Your task to perform on an android device: change notifications settings Image 0: 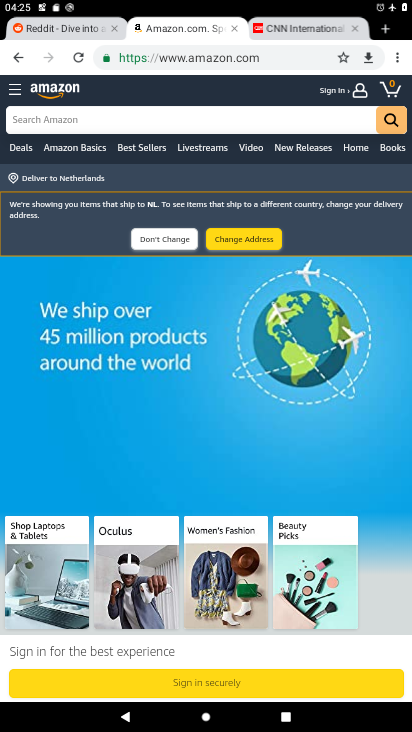
Step 0: press home button
Your task to perform on an android device: change notifications settings Image 1: 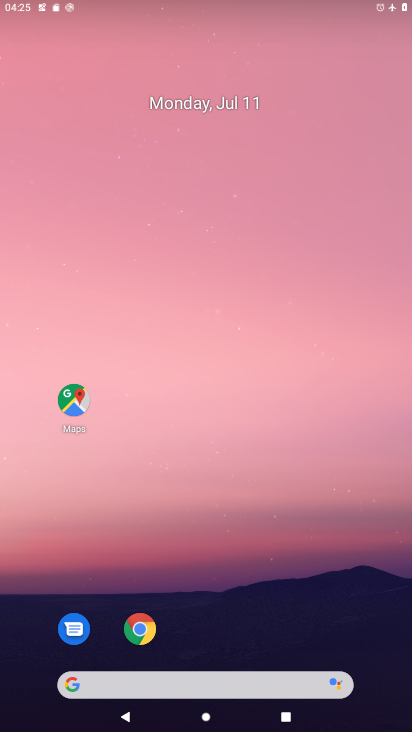
Step 1: drag from (199, 500) to (232, 23)
Your task to perform on an android device: change notifications settings Image 2: 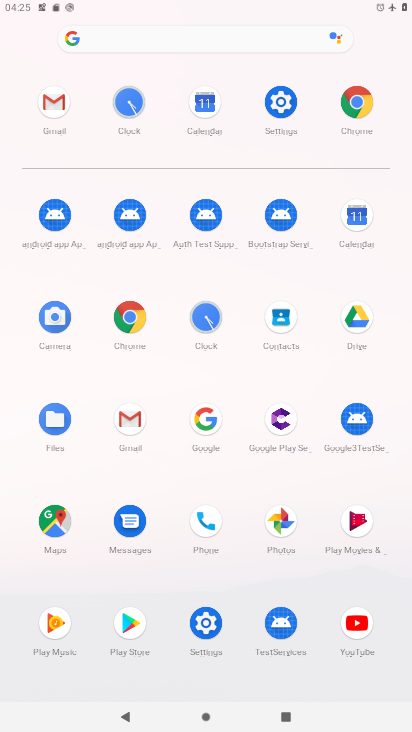
Step 2: click (290, 108)
Your task to perform on an android device: change notifications settings Image 3: 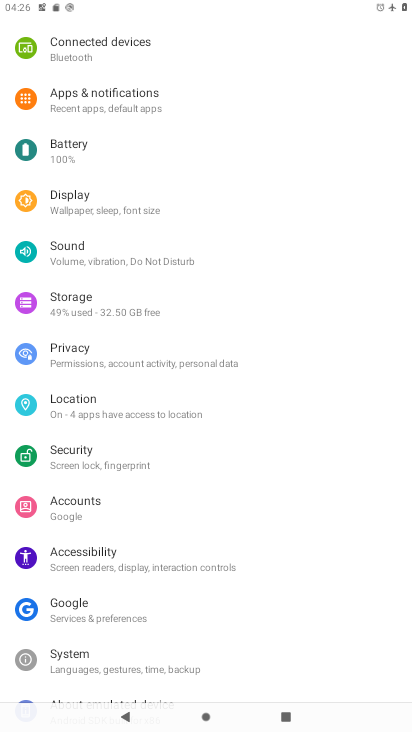
Step 3: click (129, 97)
Your task to perform on an android device: change notifications settings Image 4: 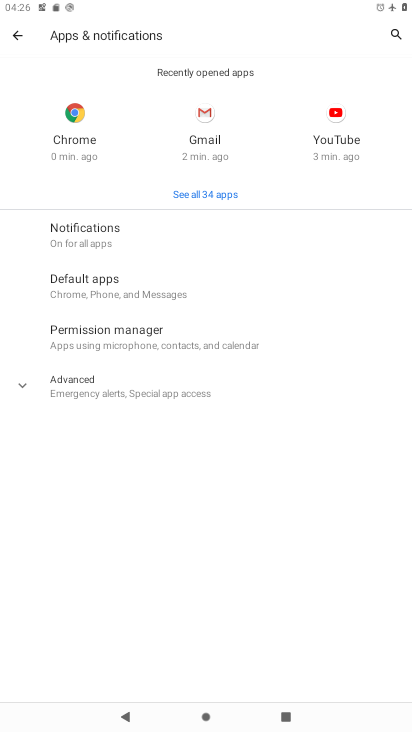
Step 4: click (79, 242)
Your task to perform on an android device: change notifications settings Image 5: 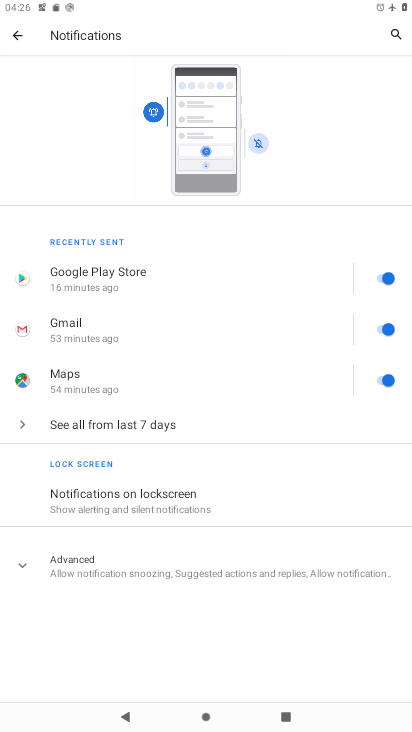
Step 5: click (172, 572)
Your task to perform on an android device: change notifications settings Image 6: 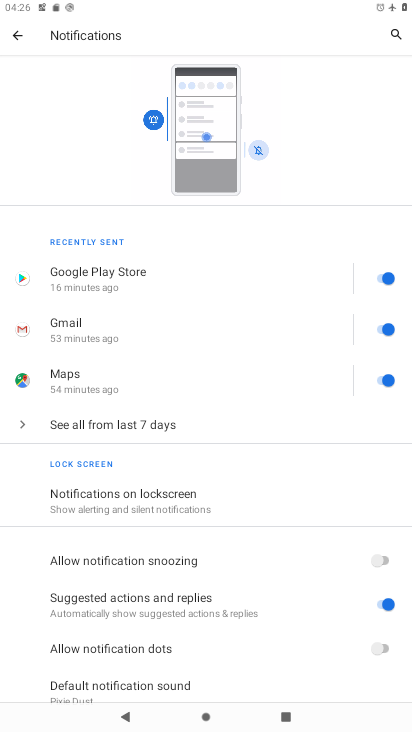
Step 6: click (378, 557)
Your task to perform on an android device: change notifications settings Image 7: 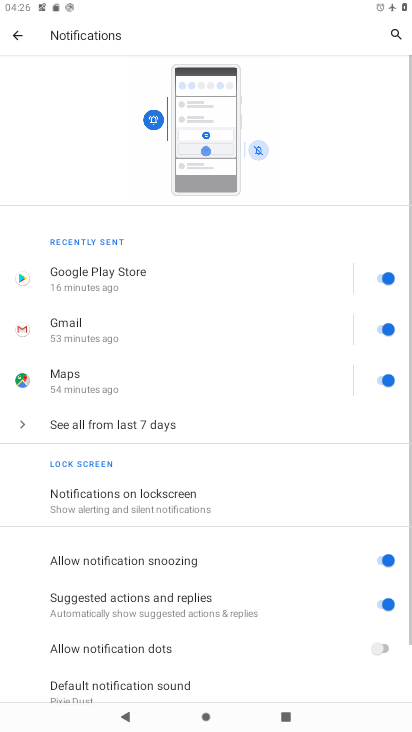
Step 7: task complete